Your task to perform on an android device: empty trash in the gmail app Image 0: 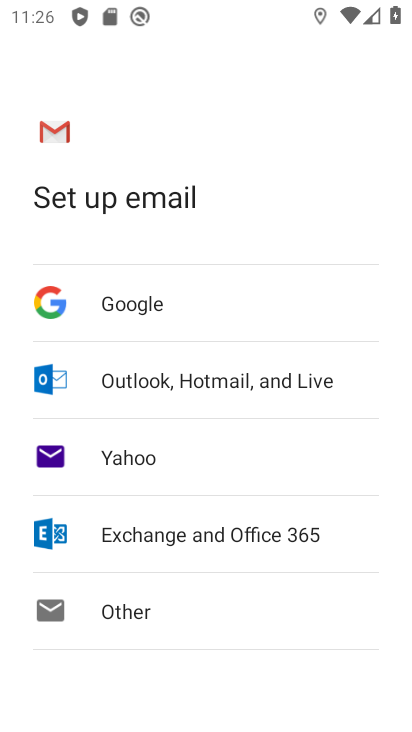
Step 0: press home button
Your task to perform on an android device: empty trash in the gmail app Image 1: 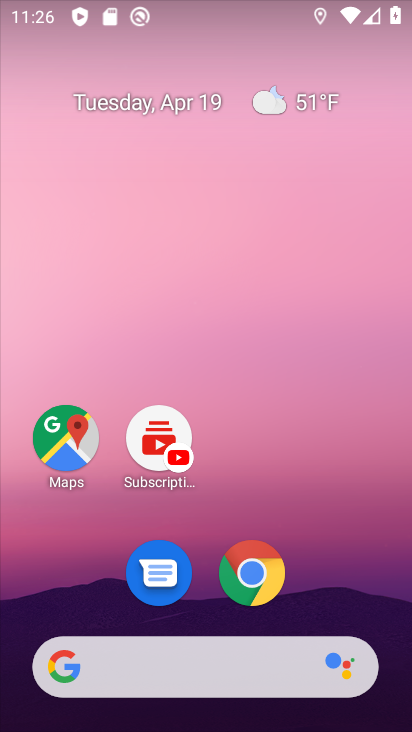
Step 1: drag from (324, 595) to (290, 127)
Your task to perform on an android device: empty trash in the gmail app Image 2: 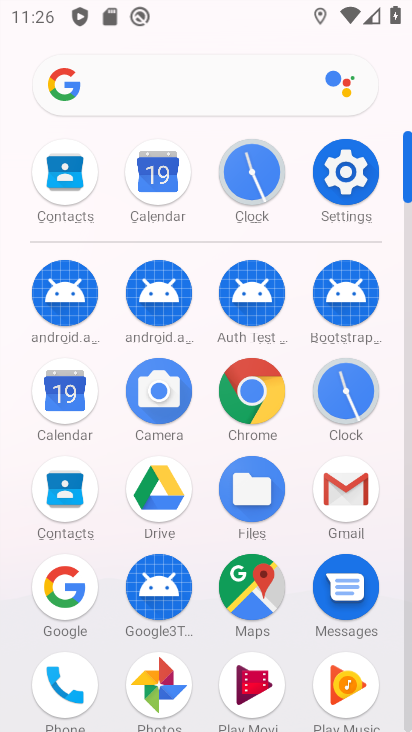
Step 2: click (352, 480)
Your task to perform on an android device: empty trash in the gmail app Image 3: 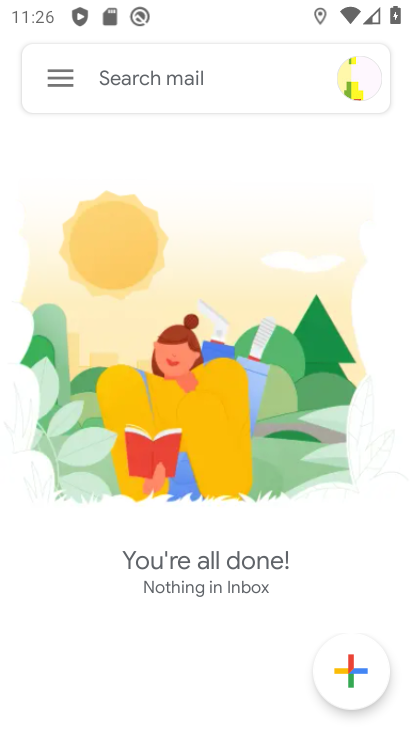
Step 3: click (51, 82)
Your task to perform on an android device: empty trash in the gmail app Image 4: 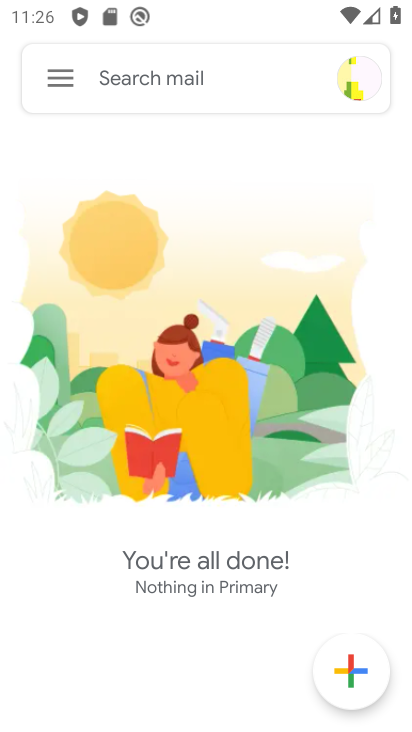
Step 4: click (61, 80)
Your task to perform on an android device: empty trash in the gmail app Image 5: 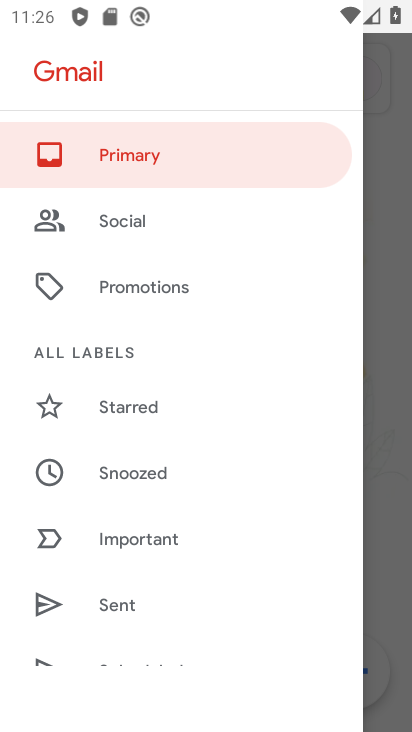
Step 5: drag from (162, 548) to (162, 321)
Your task to perform on an android device: empty trash in the gmail app Image 6: 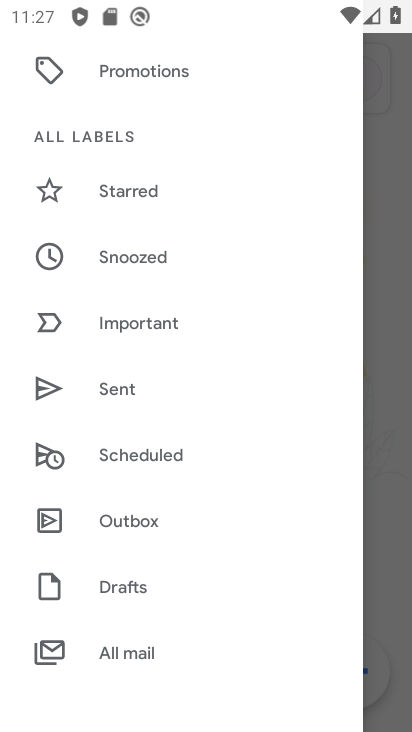
Step 6: drag from (124, 616) to (138, 150)
Your task to perform on an android device: empty trash in the gmail app Image 7: 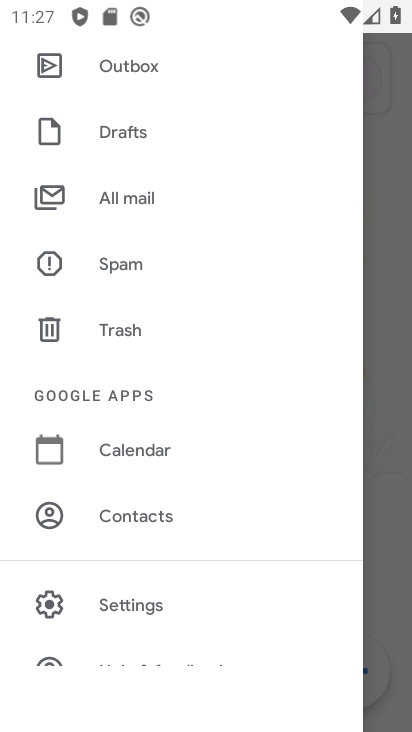
Step 7: click (102, 323)
Your task to perform on an android device: empty trash in the gmail app Image 8: 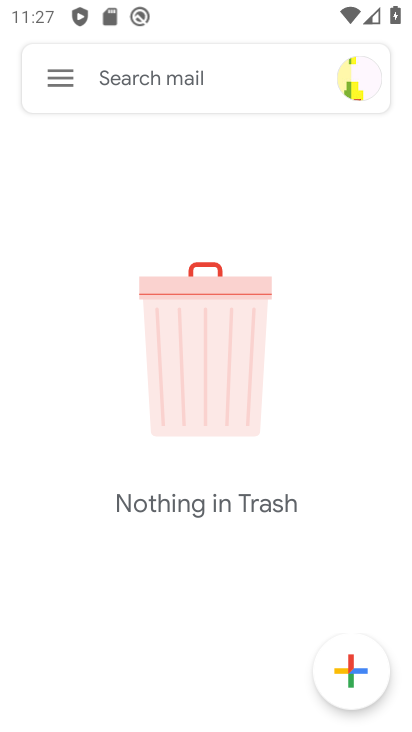
Step 8: task complete